Your task to perform on an android device: star an email in the gmail app Image 0: 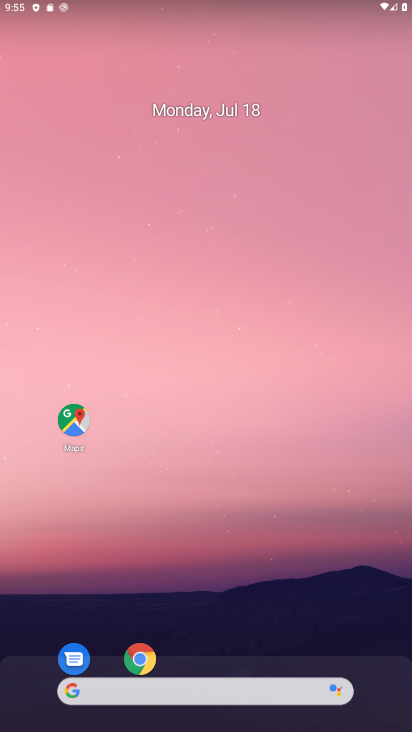
Step 0: drag from (241, 593) to (235, 173)
Your task to perform on an android device: star an email in the gmail app Image 1: 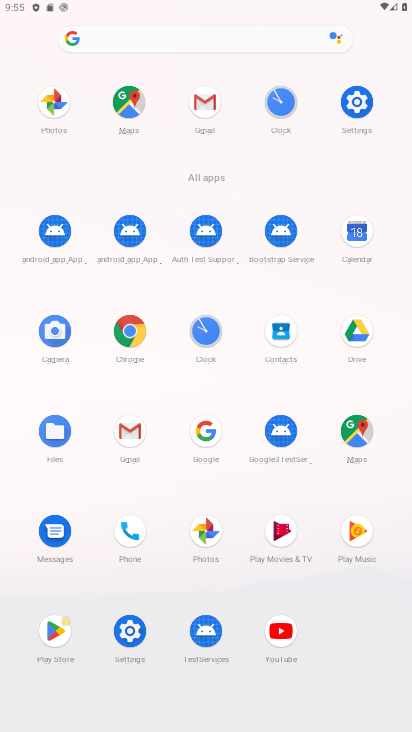
Step 1: click (132, 436)
Your task to perform on an android device: star an email in the gmail app Image 2: 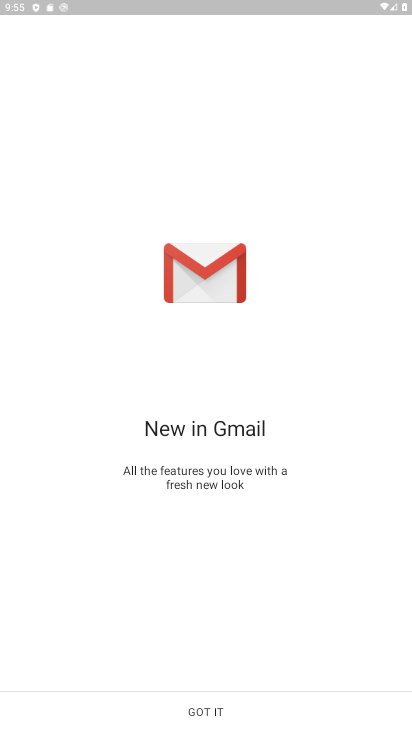
Step 2: click (199, 706)
Your task to perform on an android device: star an email in the gmail app Image 3: 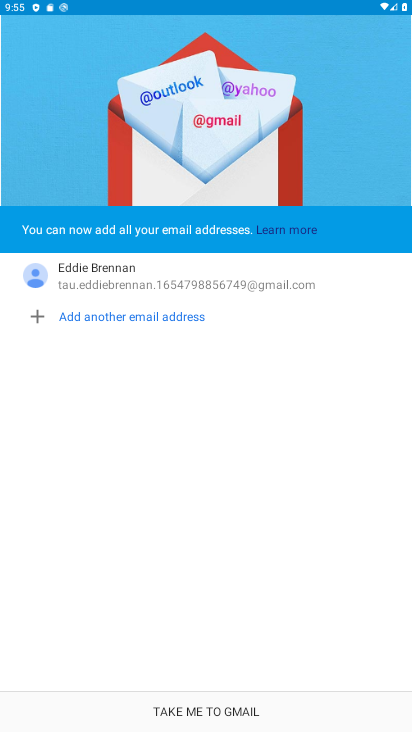
Step 3: click (199, 706)
Your task to perform on an android device: star an email in the gmail app Image 4: 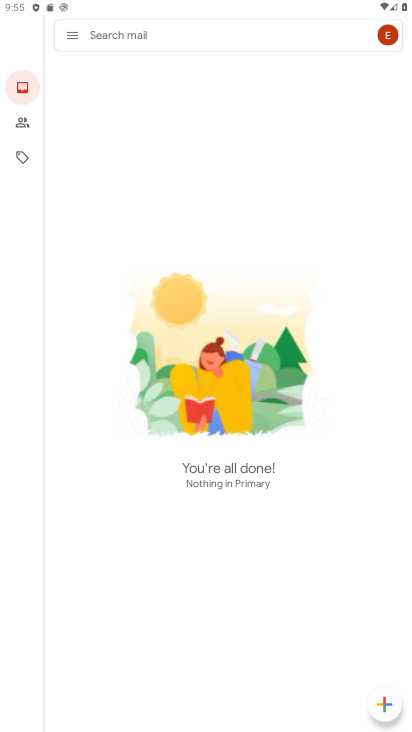
Step 4: task complete